Your task to perform on an android device: Open calendar and show me the second week of next month Image 0: 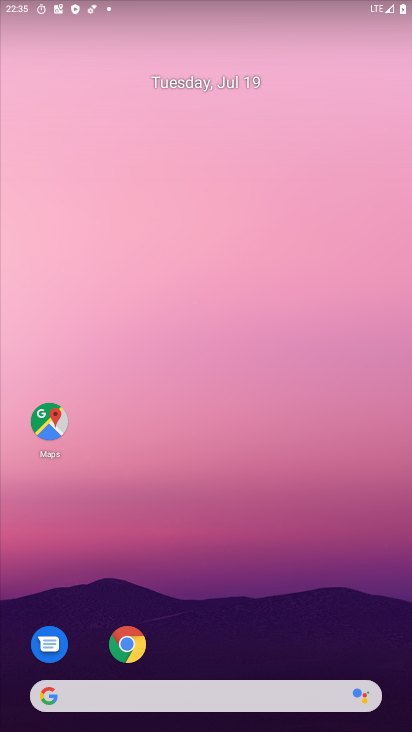
Step 0: drag from (373, 624) to (233, 1)
Your task to perform on an android device: Open calendar and show me the second week of next month Image 1: 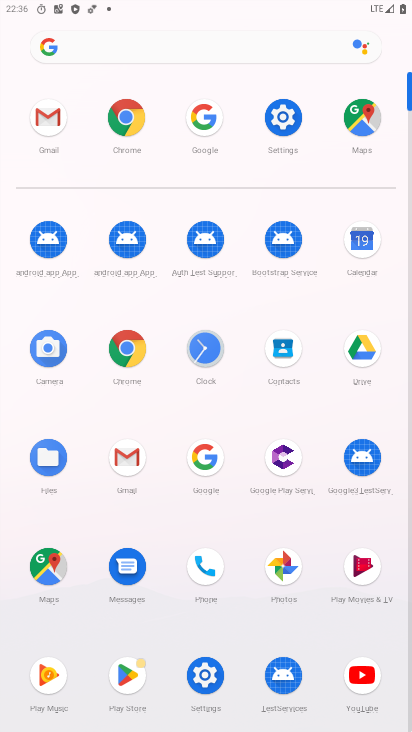
Step 1: click (357, 246)
Your task to perform on an android device: Open calendar and show me the second week of next month Image 2: 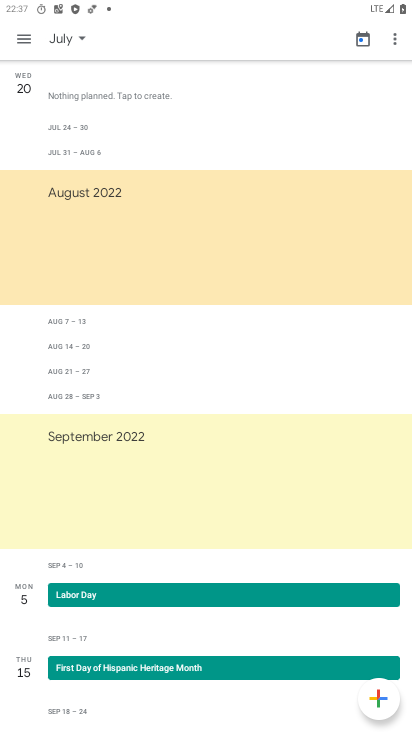
Step 2: click (78, 41)
Your task to perform on an android device: Open calendar and show me the second week of next month Image 3: 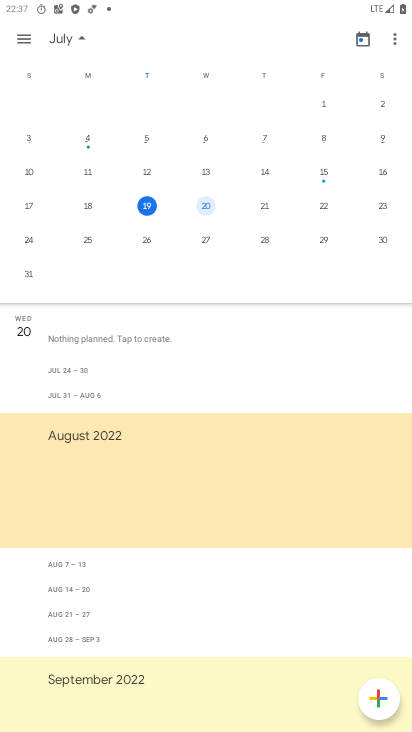
Step 3: drag from (338, 167) to (0, 203)
Your task to perform on an android device: Open calendar and show me the second week of next month Image 4: 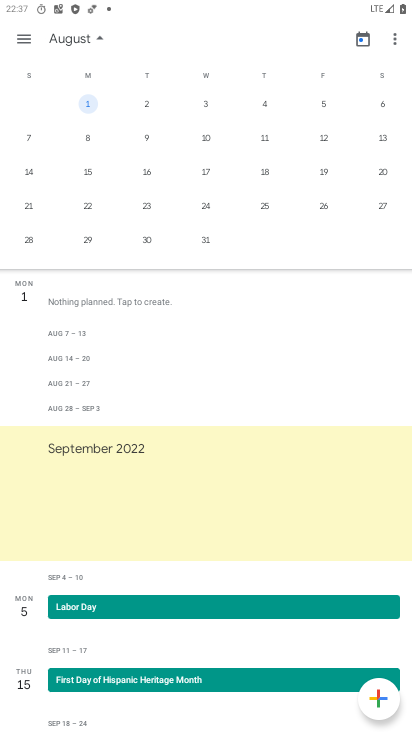
Step 4: click (85, 146)
Your task to perform on an android device: Open calendar and show me the second week of next month Image 5: 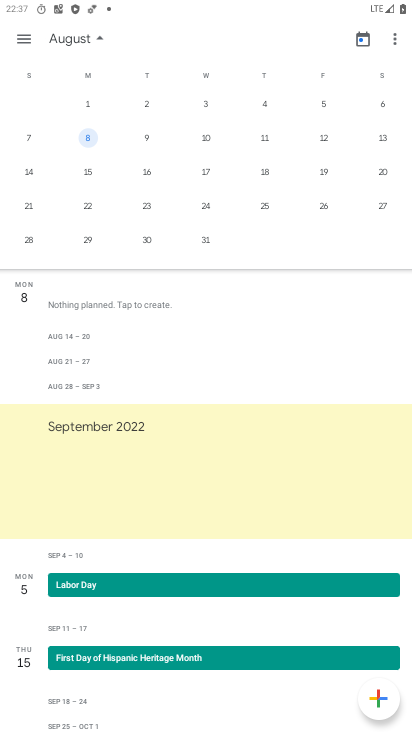
Step 5: task complete